Your task to perform on an android device: delete the emails in spam in the gmail app Image 0: 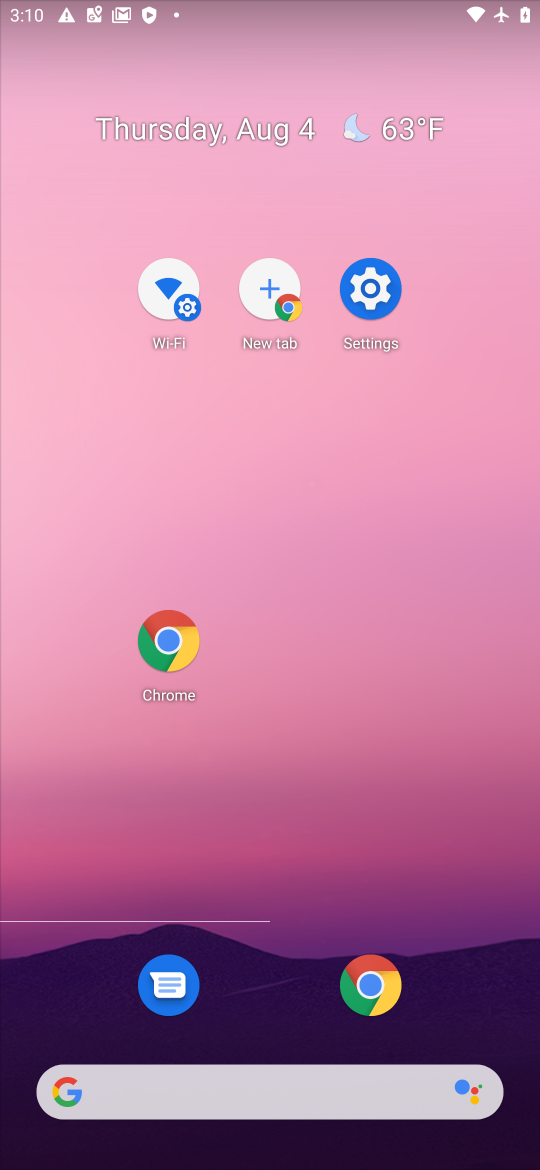
Step 0: press back button
Your task to perform on an android device: delete the emails in spam in the gmail app Image 1: 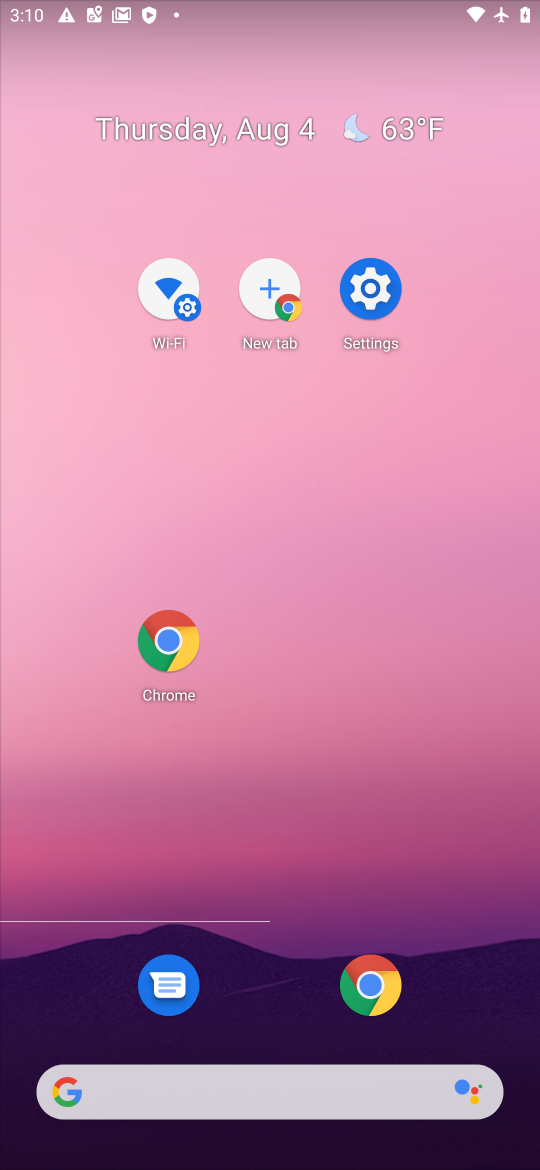
Step 1: drag from (257, 827) to (173, 436)
Your task to perform on an android device: delete the emails in spam in the gmail app Image 2: 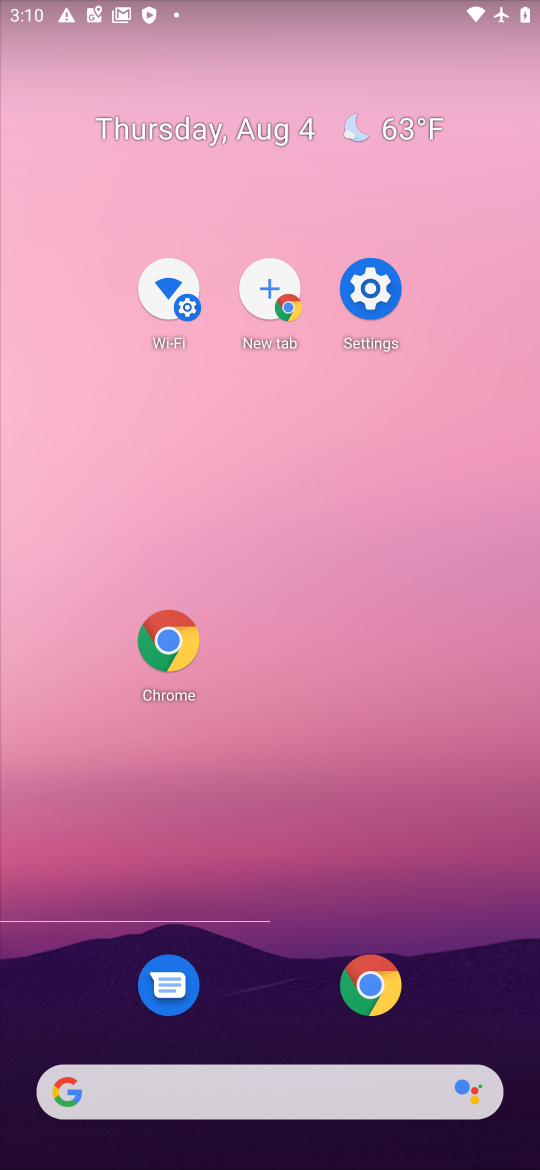
Step 2: drag from (362, 1098) to (245, 285)
Your task to perform on an android device: delete the emails in spam in the gmail app Image 3: 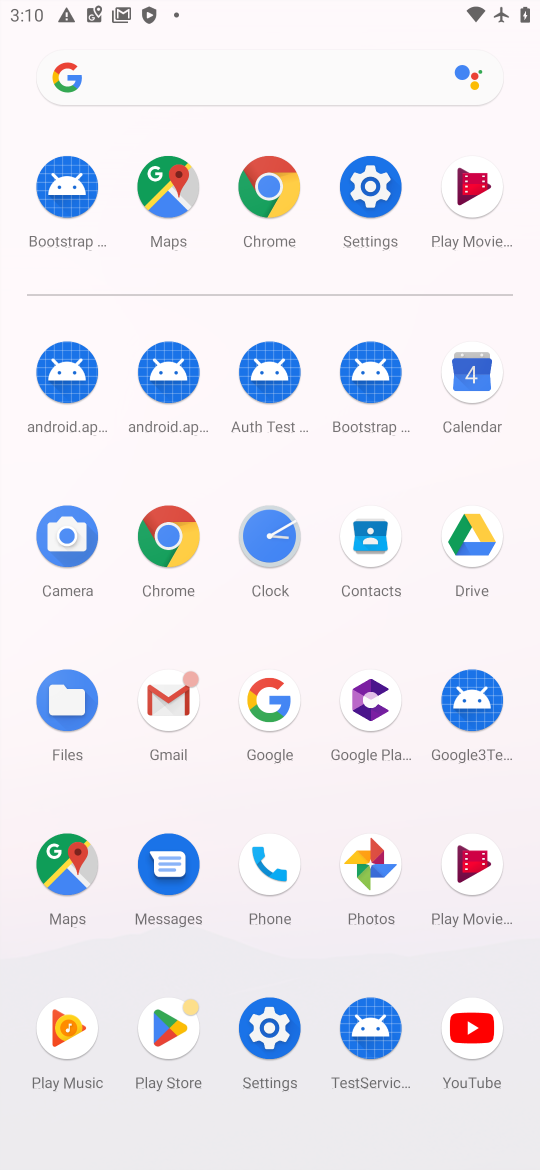
Step 3: click (178, 702)
Your task to perform on an android device: delete the emails in spam in the gmail app Image 4: 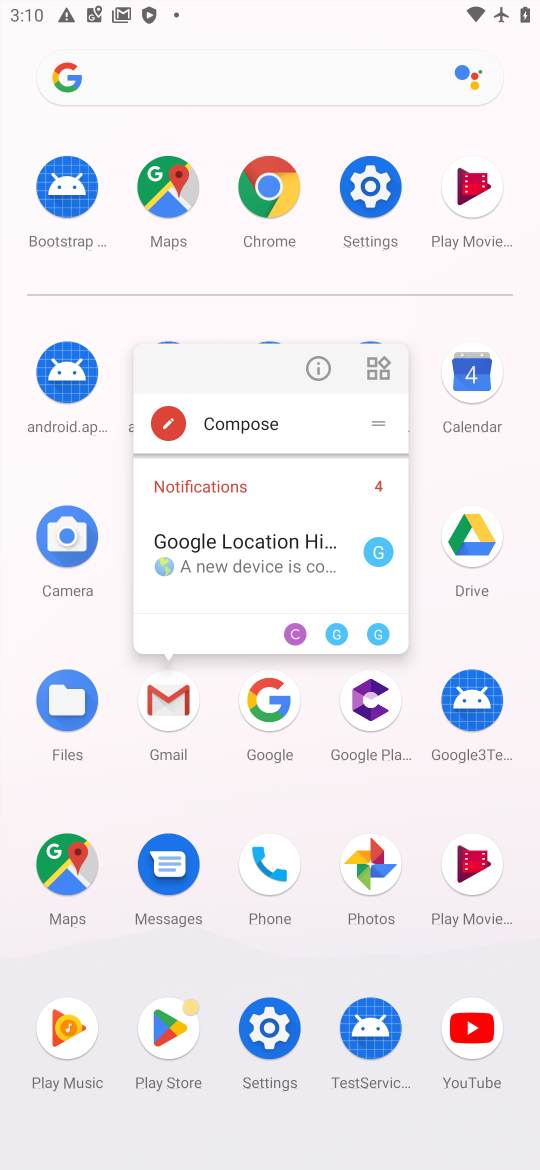
Step 4: click (230, 435)
Your task to perform on an android device: delete the emails in spam in the gmail app Image 5: 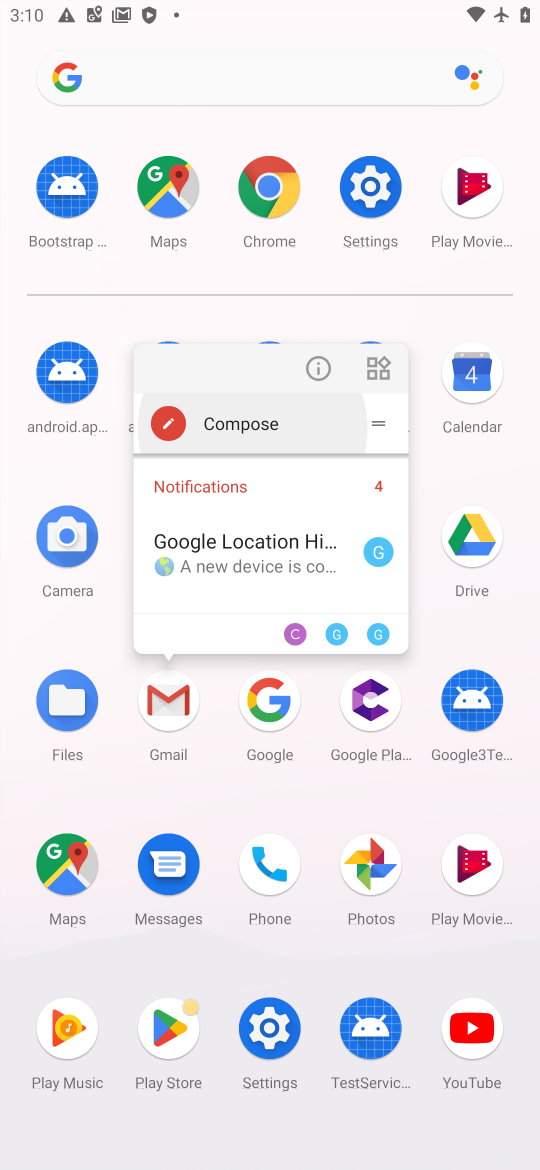
Step 5: click (233, 434)
Your task to perform on an android device: delete the emails in spam in the gmail app Image 6: 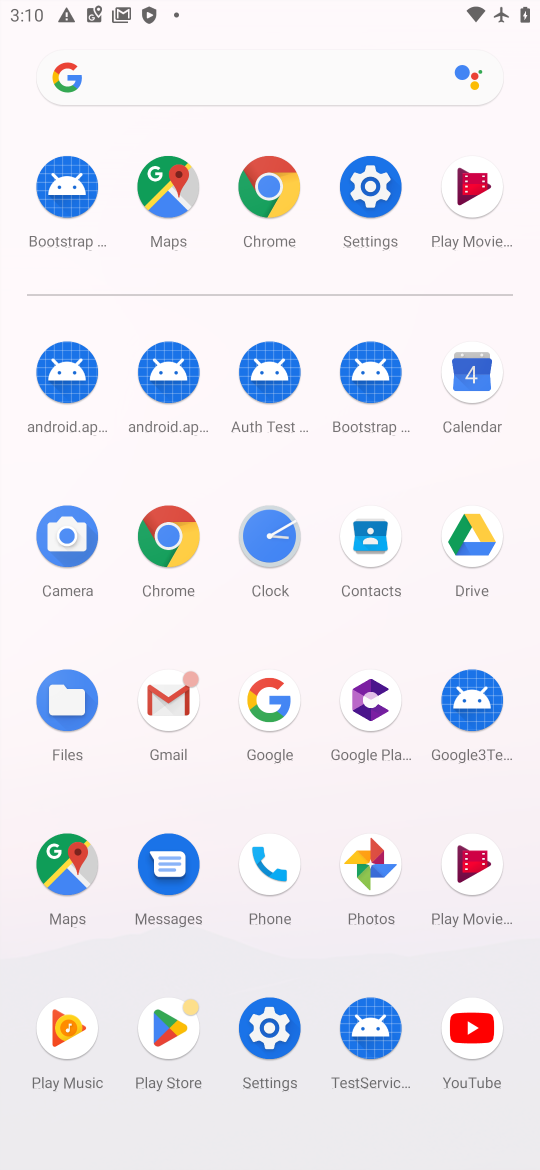
Step 6: click (236, 437)
Your task to perform on an android device: delete the emails in spam in the gmail app Image 7: 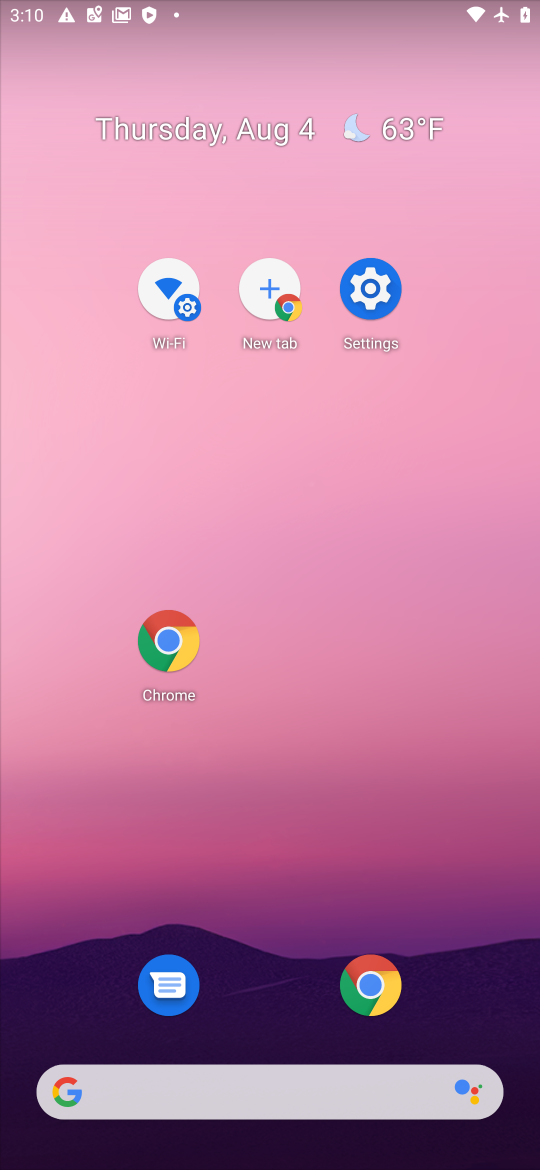
Step 7: drag from (260, 1059) to (202, 141)
Your task to perform on an android device: delete the emails in spam in the gmail app Image 8: 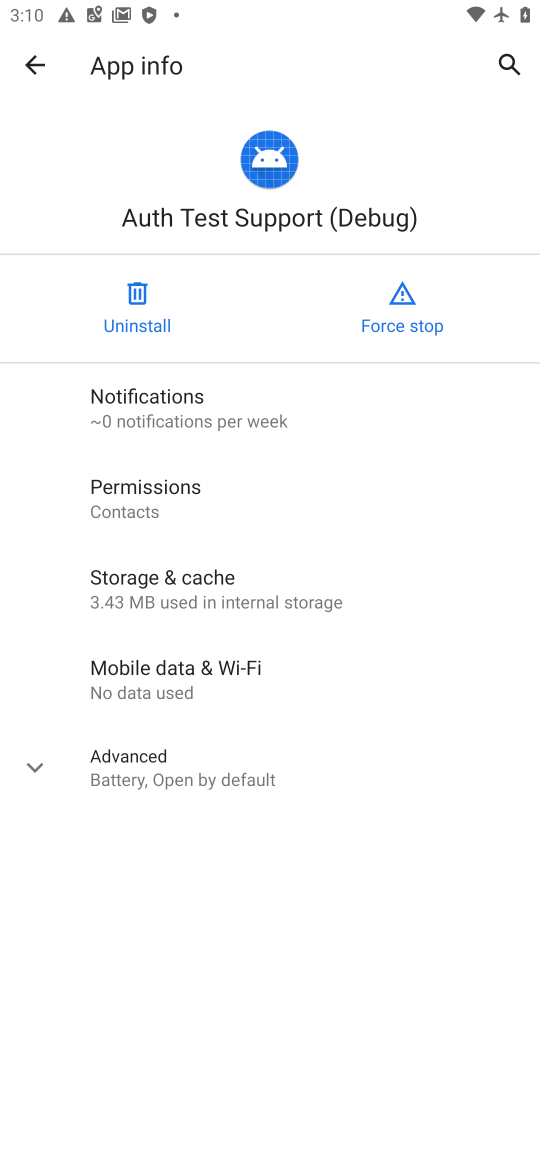
Step 8: click (20, 57)
Your task to perform on an android device: delete the emails in spam in the gmail app Image 9: 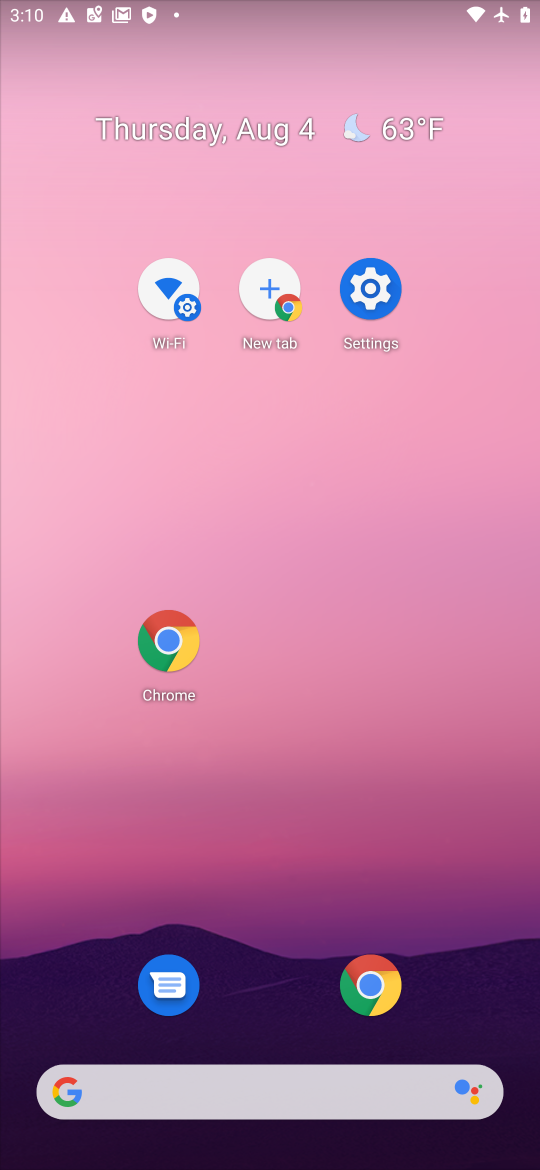
Step 9: drag from (277, 971) to (245, 419)
Your task to perform on an android device: delete the emails in spam in the gmail app Image 10: 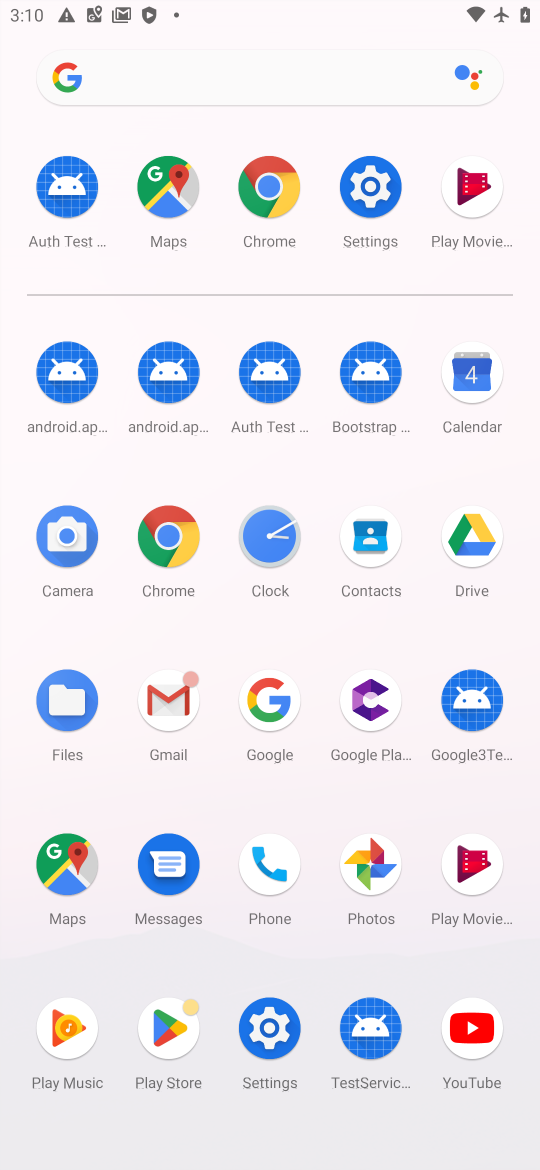
Step 10: click (160, 688)
Your task to perform on an android device: delete the emails in spam in the gmail app Image 11: 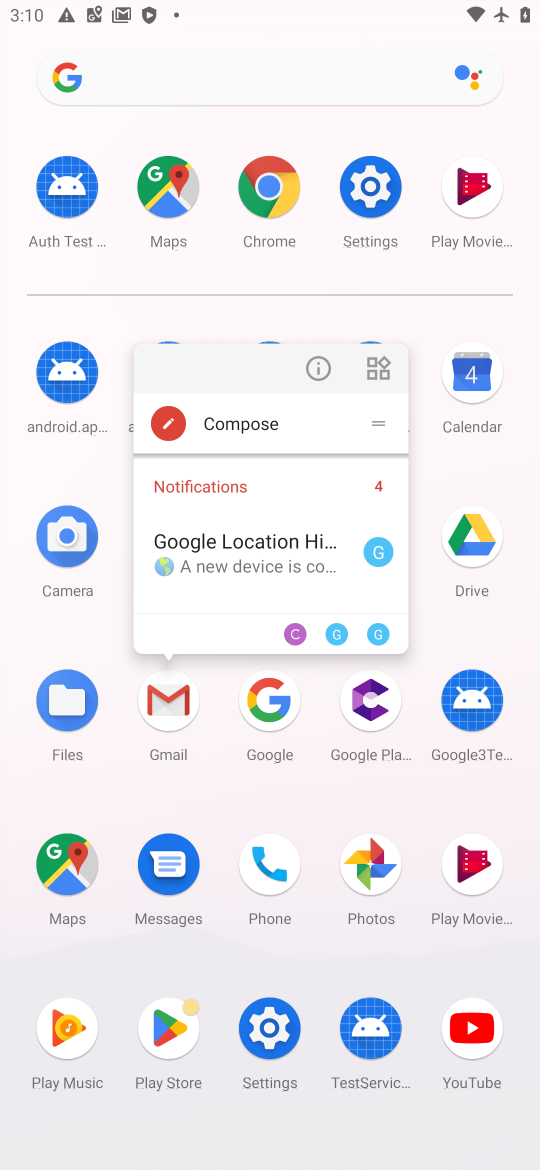
Step 11: click (202, 569)
Your task to perform on an android device: delete the emails in spam in the gmail app Image 12: 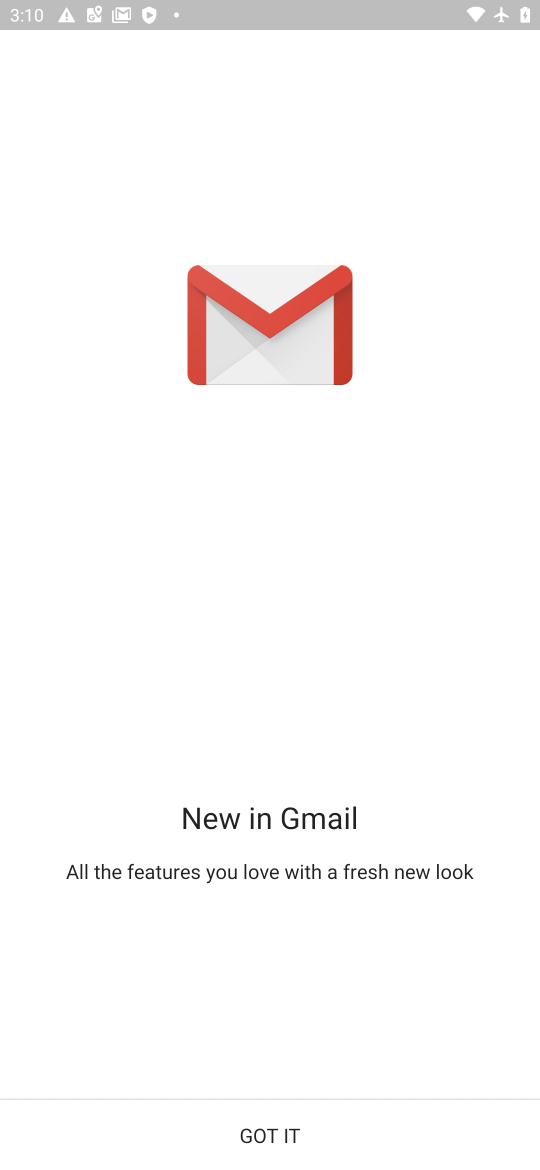
Step 12: click (271, 1123)
Your task to perform on an android device: delete the emails in spam in the gmail app Image 13: 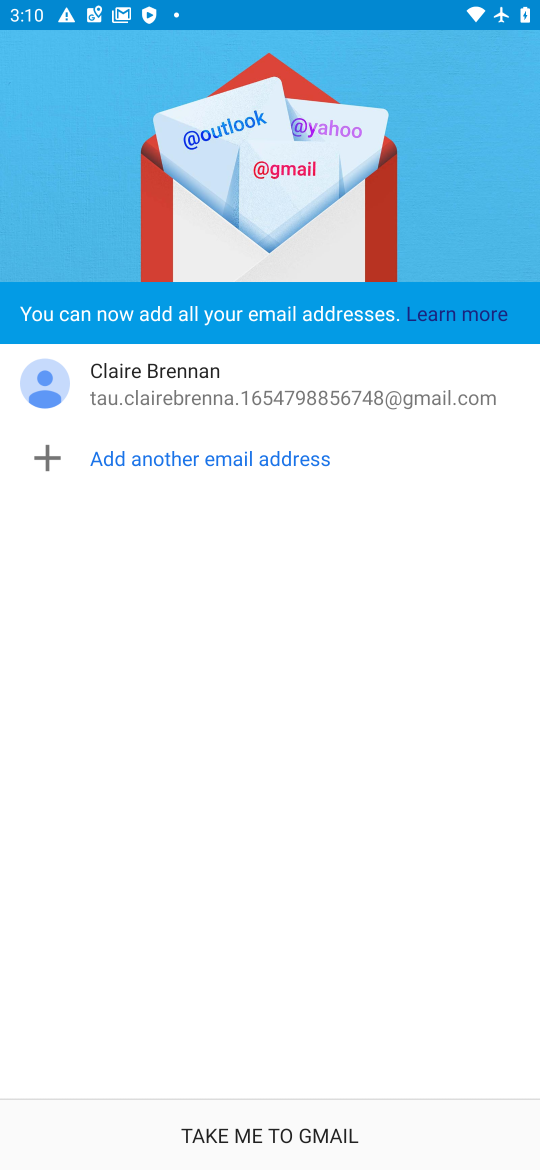
Step 13: click (260, 1135)
Your task to perform on an android device: delete the emails in spam in the gmail app Image 14: 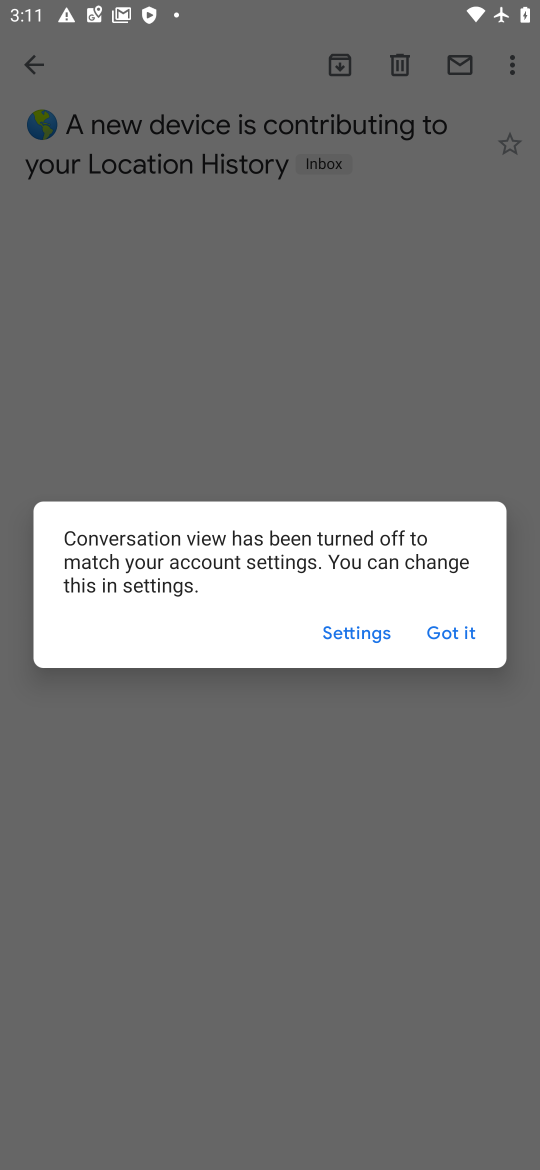
Step 14: click (452, 631)
Your task to perform on an android device: delete the emails in spam in the gmail app Image 15: 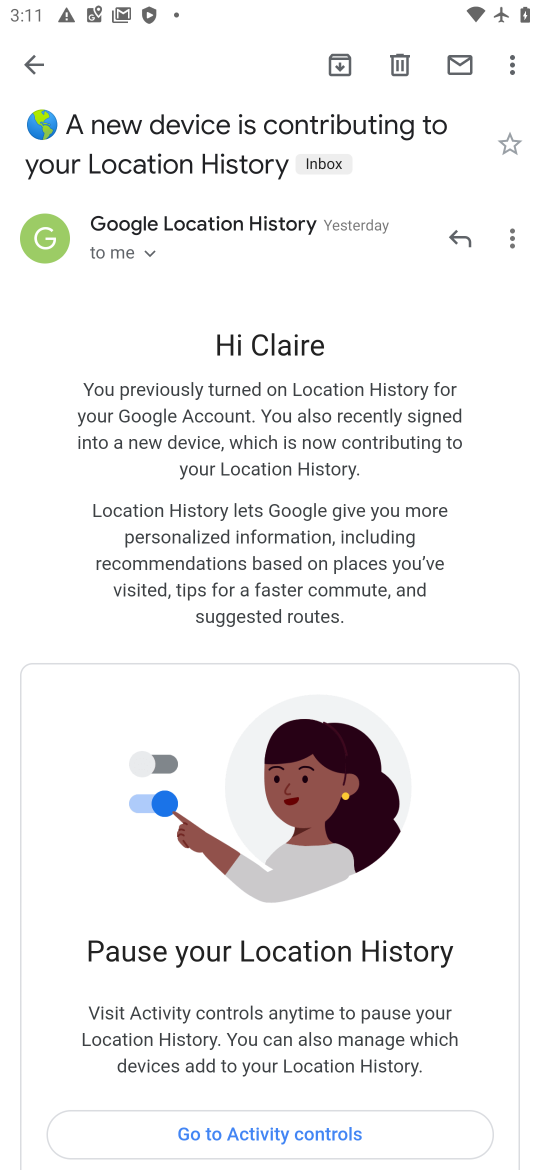
Step 15: drag from (275, 112) to (287, 168)
Your task to perform on an android device: delete the emails in spam in the gmail app Image 16: 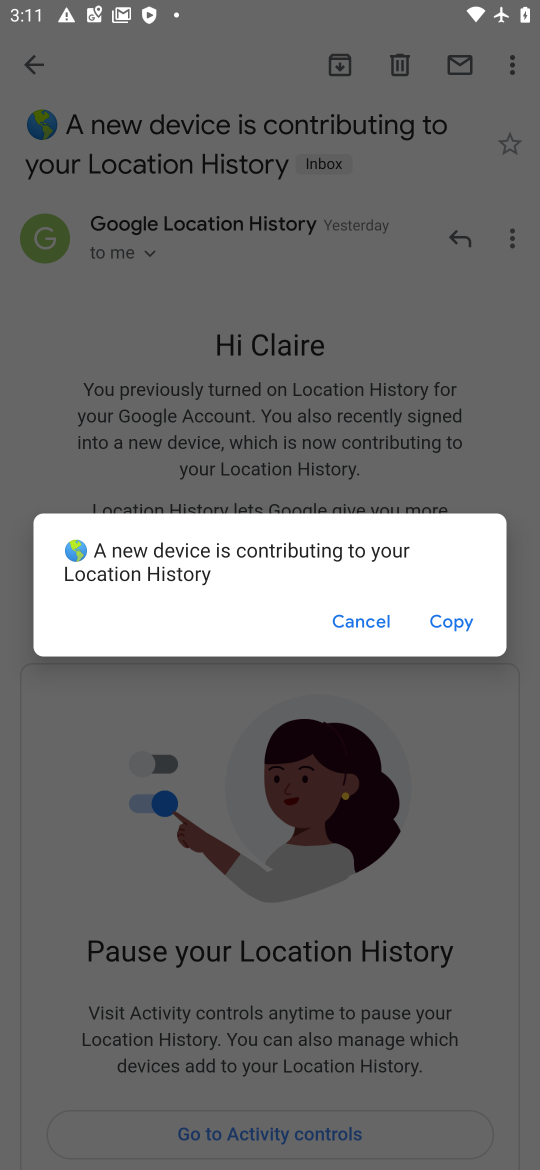
Step 16: click (364, 628)
Your task to perform on an android device: delete the emails in spam in the gmail app Image 17: 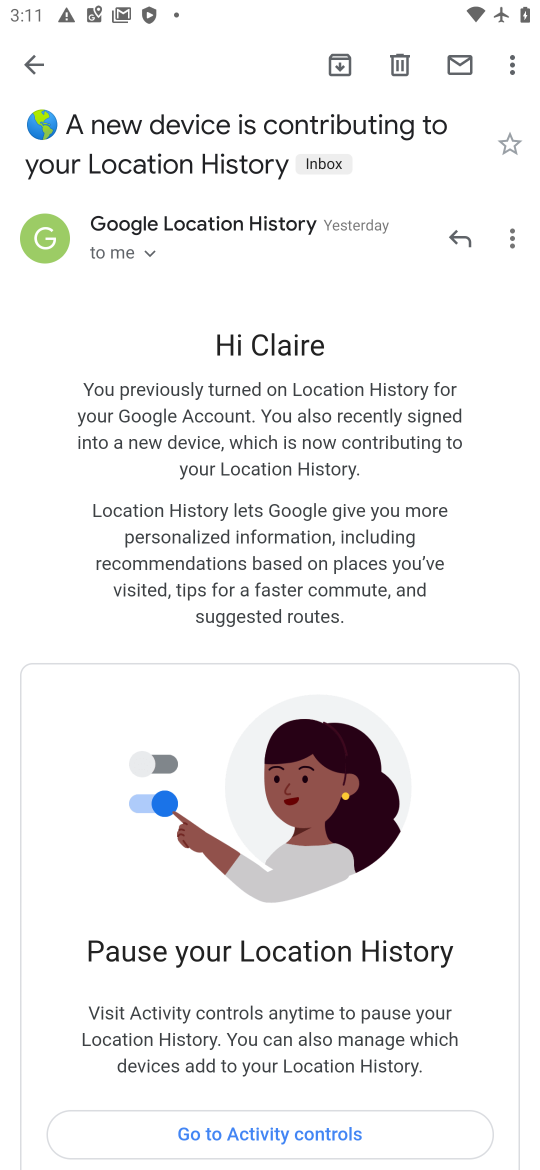
Step 17: click (236, 383)
Your task to perform on an android device: delete the emails in spam in the gmail app Image 18: 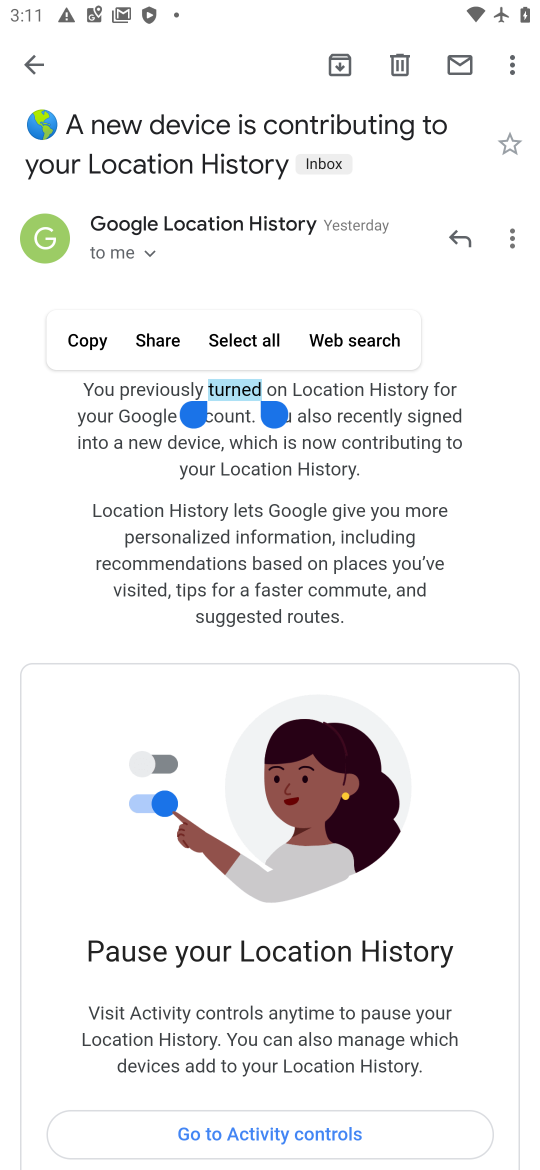
Step 18: click (53, 363)
Your task to perform on an android device: delete the emails in spam in the gmail app Image 19: 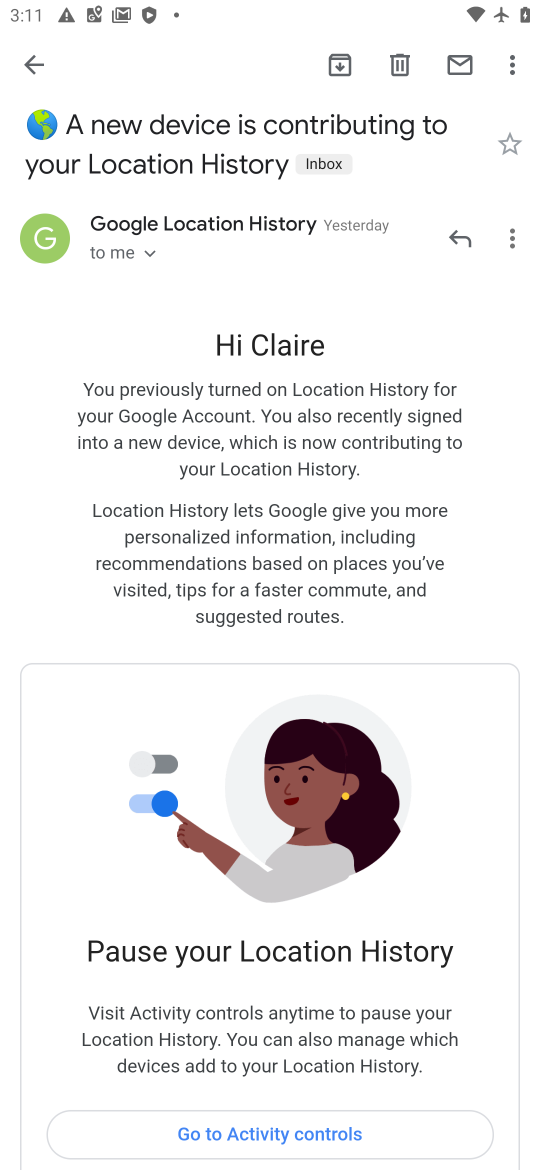
Step 19: click (33, 52)
Your task to perform on an android device: delete the emails in spam in the gmail app Image 20: 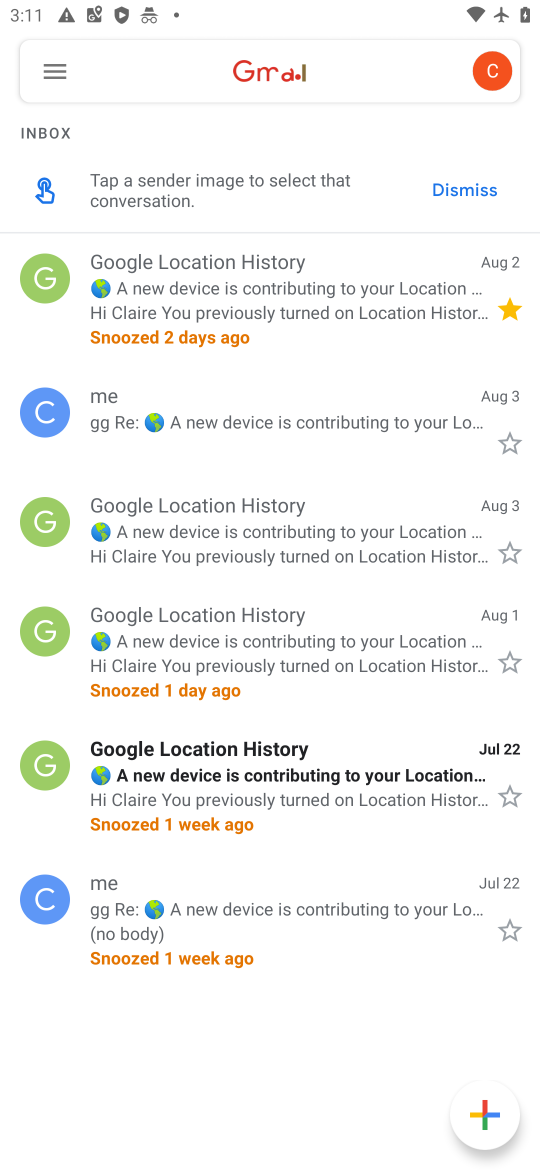
Step 20: click (276, 290)
Your task to perform on an android device: delete the emails in spam in the gmail app Image 21: 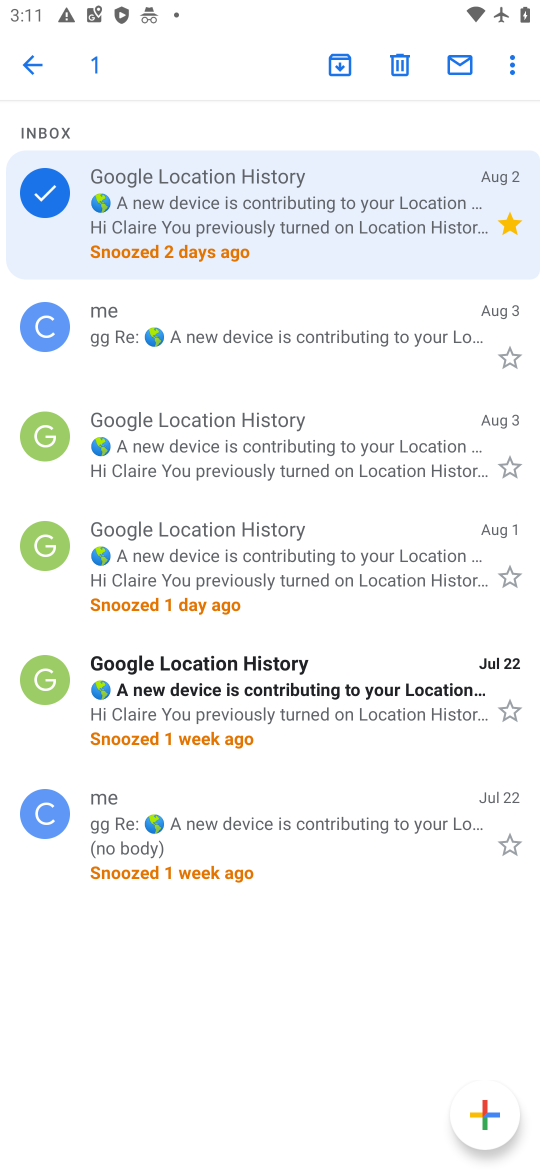
Step 21: click (404, 59)
Your task to perform on an android device: delete the emails in spam in the gmail app Image 22: 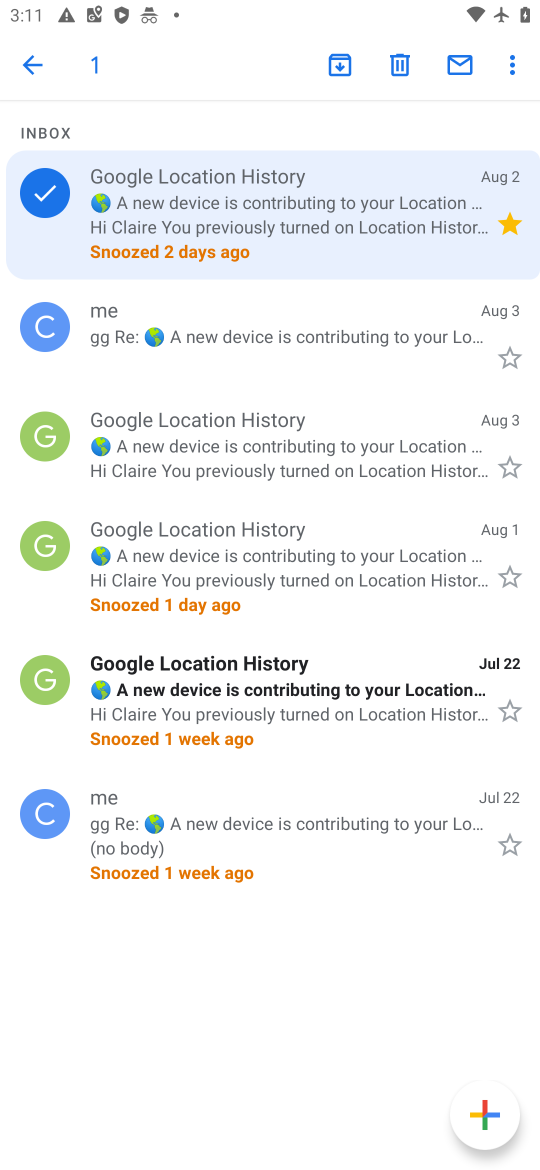
Step 22: click (397, 67)
Your task to perform on an android device: delete the emails in spam in the gmail app Image 23: 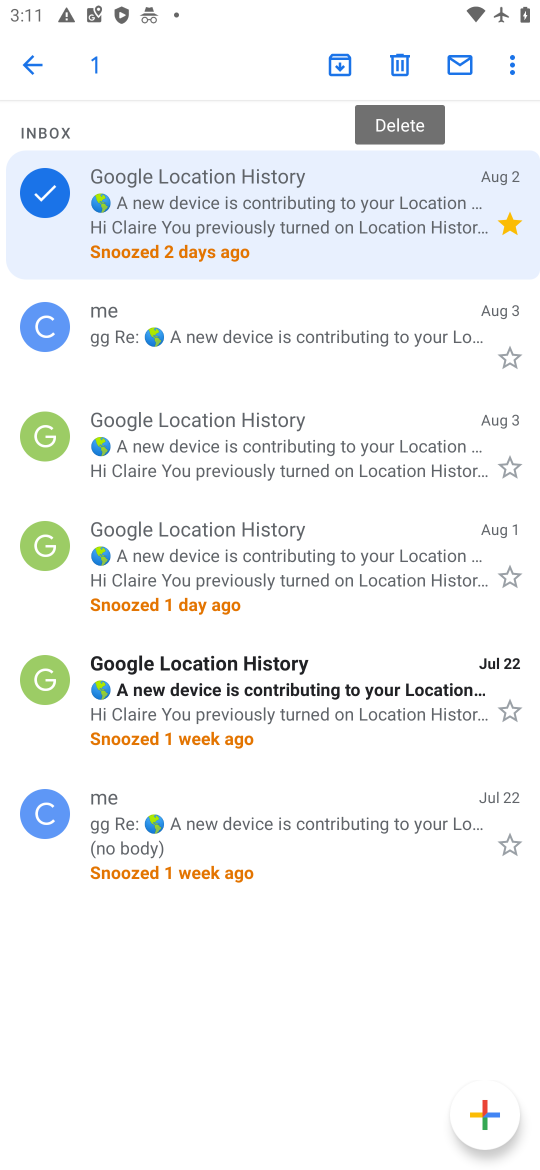
Step 23: click (397, 67)
Your task to perform on an android device: delete the emails in spam in the gmail app Image 24: 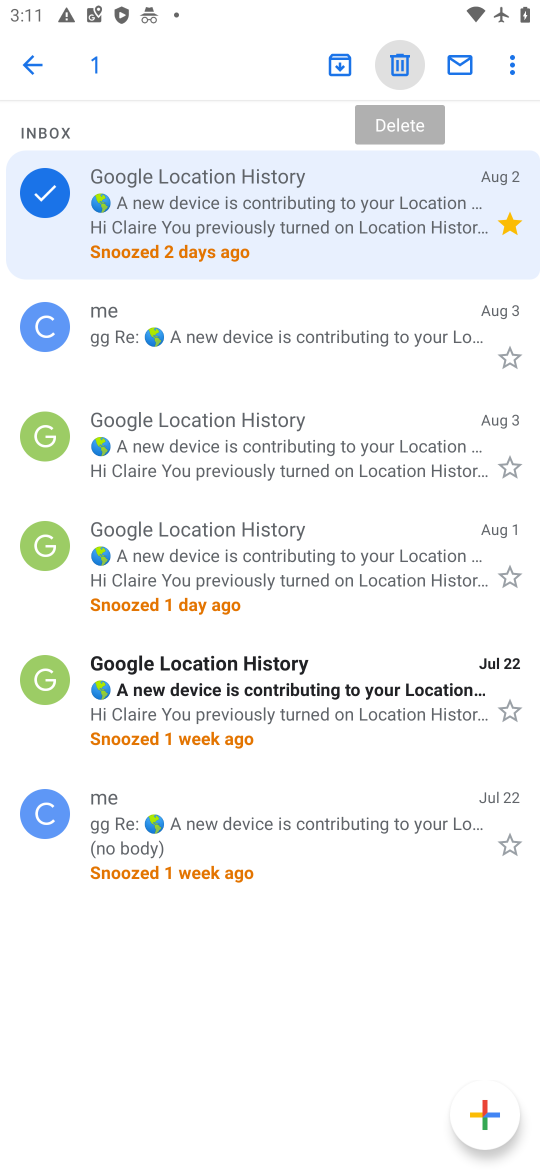
Step 24: click (397, 67)
Your task to perform on an android device: delete the emails in spam in the gmail app Image 25: 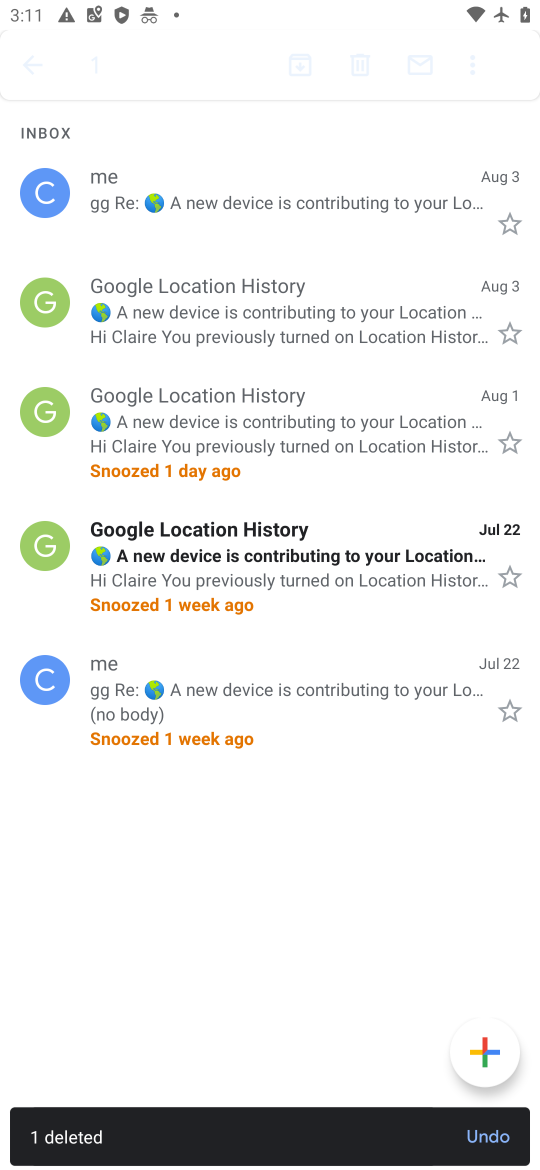
Step 25: click (397, 67)
Your task to perform on an android device: delete the emails in spam in the gmail app Image 26: 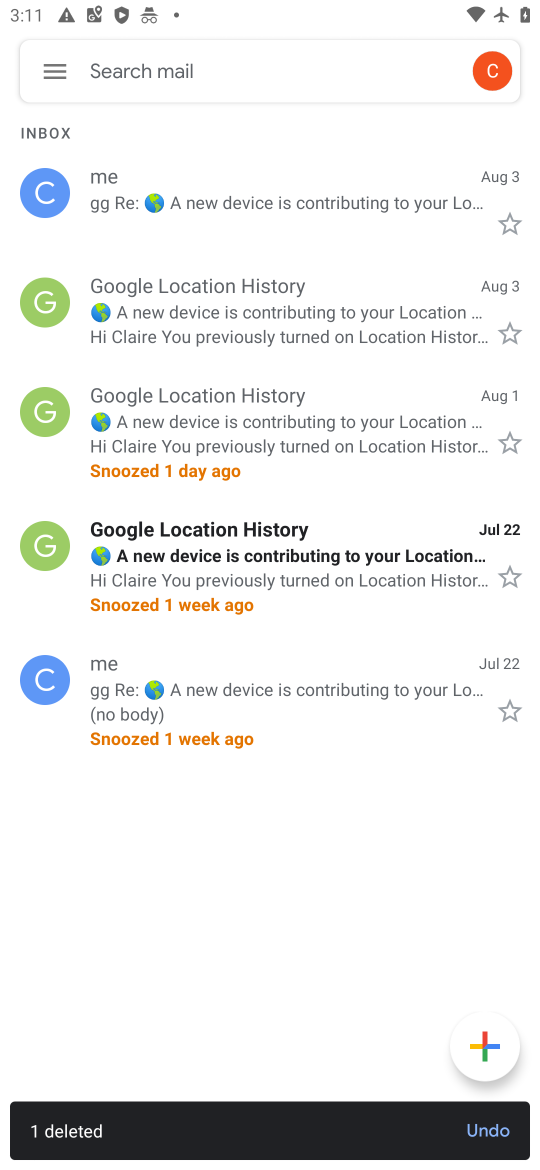
Step 26: click (397, 67)
Your task to perform on an android device: delete the emails in spam in the gmail app Image 27: 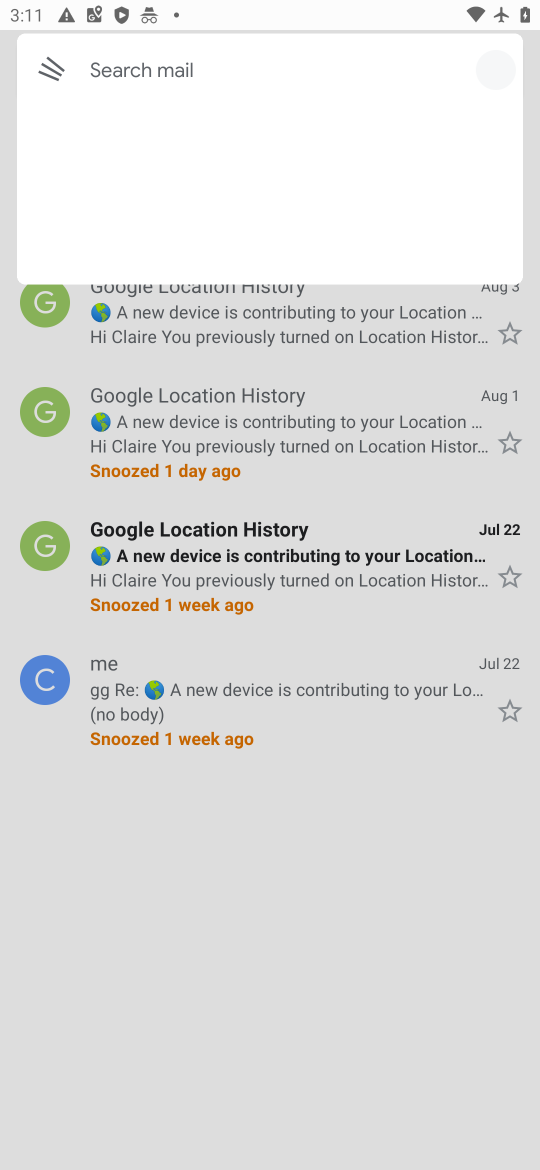
Step 27: click (397, 67)
Your task to perform on an android device: delete the emails in spam in the gmail app Image 28: 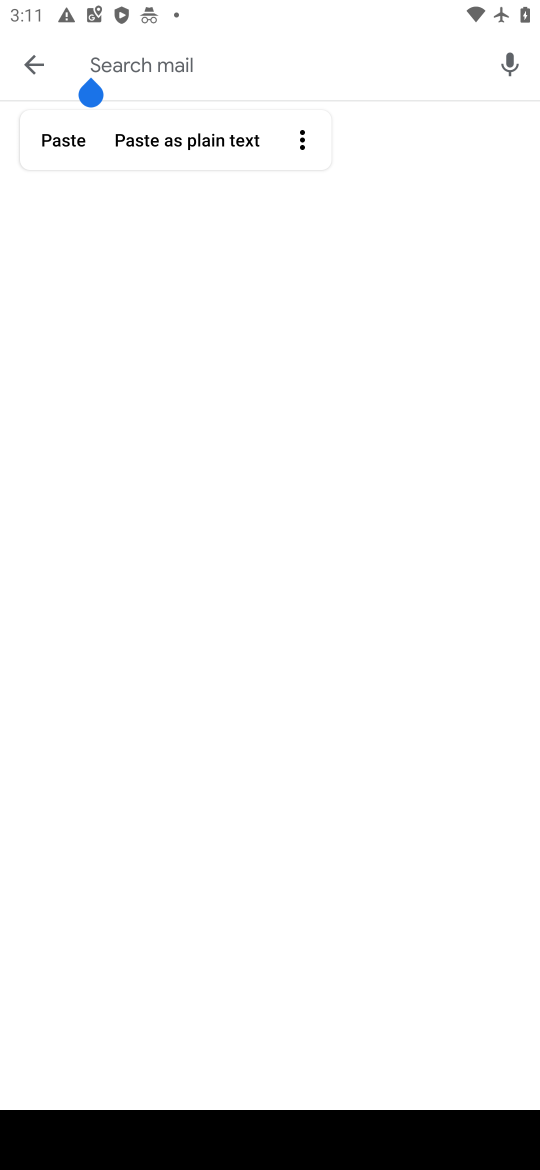
Step 28: task complete